Your task to perform on an android device: turn notification dots off Image 0: 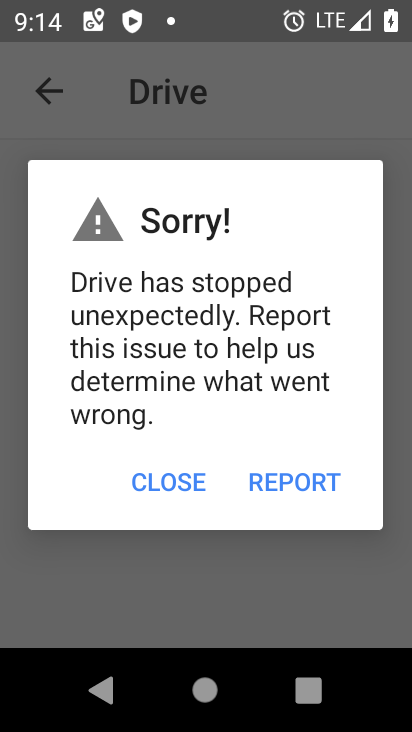
Step 0: press home button
Your task to perform on an android device: turn notification dots off Image 1: 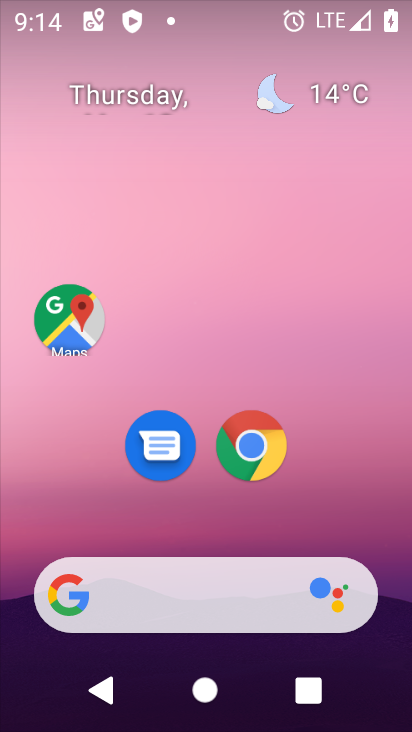
Step 1: drag from (2, 343) to (409, 326)
Your task to perform on an android device: turn notification dots off Image 2: 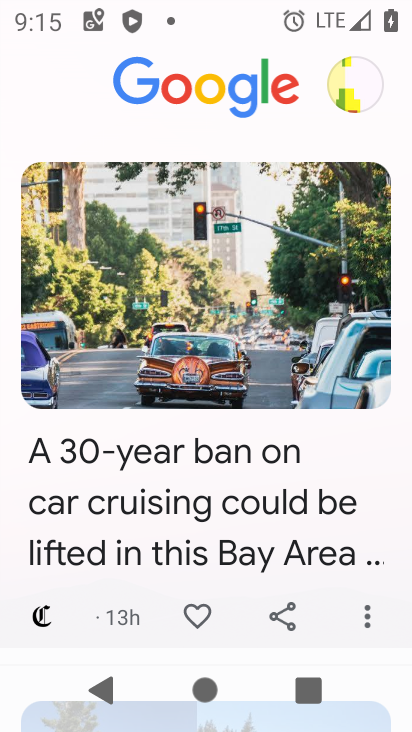
Step 2: press home button
Your task to perform on an android device: turn notification dots off Image 3: 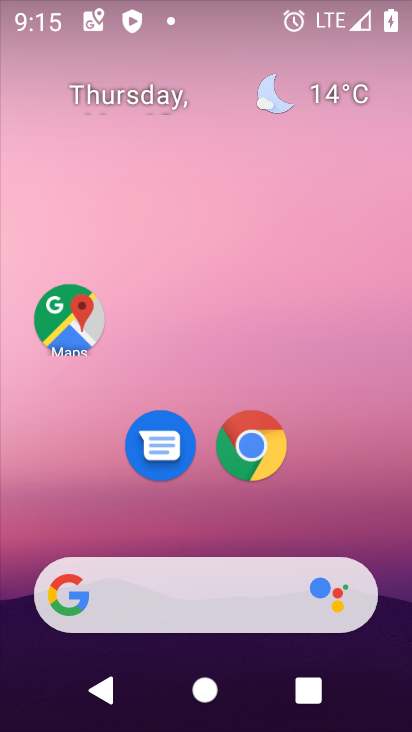
Step 3: drag from (243, 659) to (231, 194)
Your task to perform on an android device: turn notification dots off Image 4: 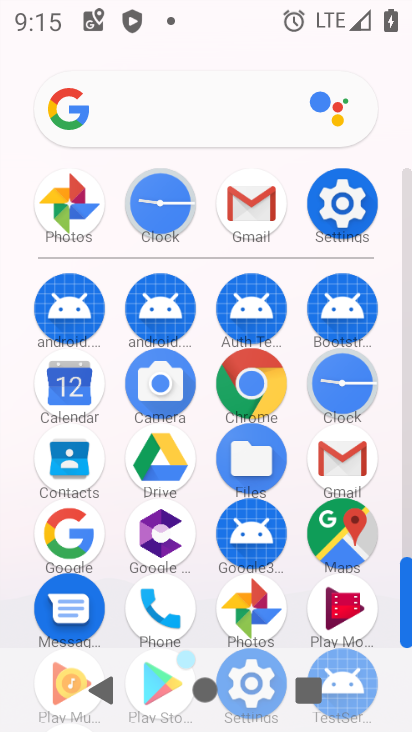
Step 4: click (342, 198)
Your task to perform on an android device: turn notification dots off Image 5: 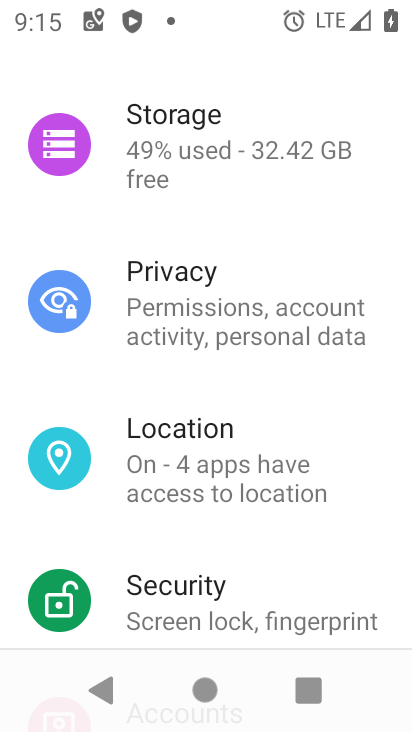
Step 5: drag from (228, 196) to (219, 555)
Your task to perform on an android device: turn notification dots off Image 6: 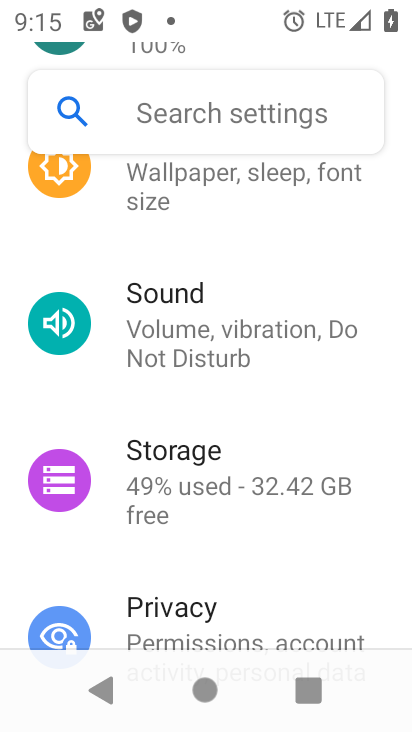
Step 6: drag from (221, 196) to (223, 518)
Your task to perform on an android device: turn notification dots off Image 7: 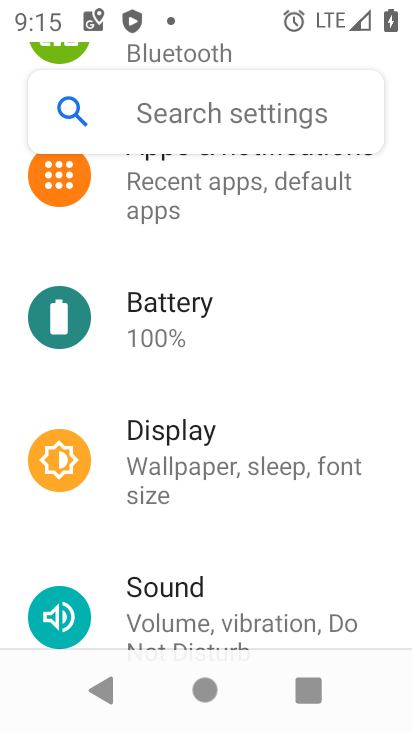
Step 7: drag from (250, 199) to (247, 589)
Your task to perform on an android device: turn notification dots off Image 8: 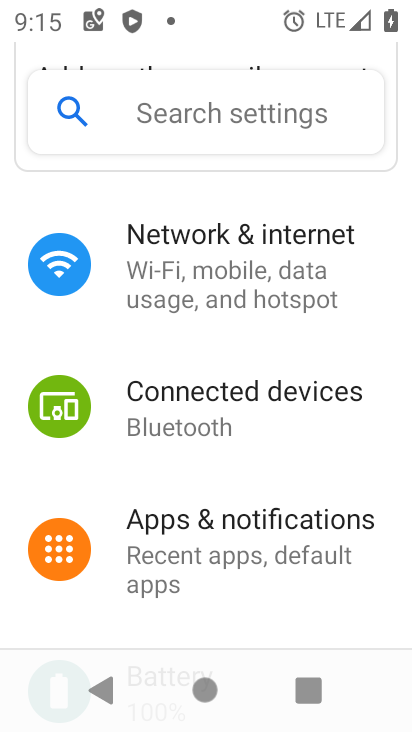
Step 8: click (242, 531)
Your task to perform on an android device: turn notification dots off Image 9: 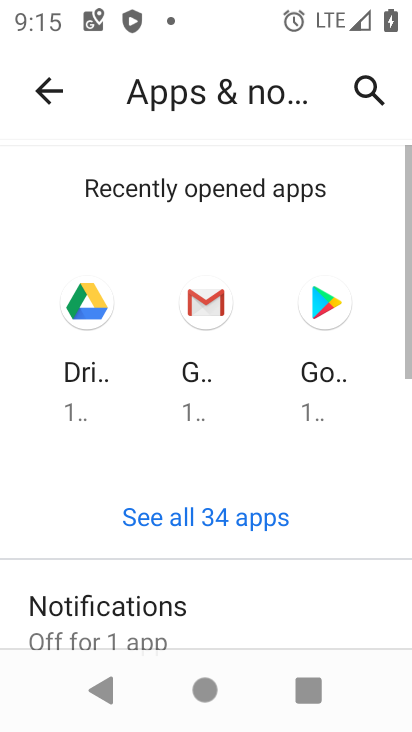
Step 9: drag from (219, 626) to (234, 230)
Your task to perform on an android device: turn notification dots off Image 10: 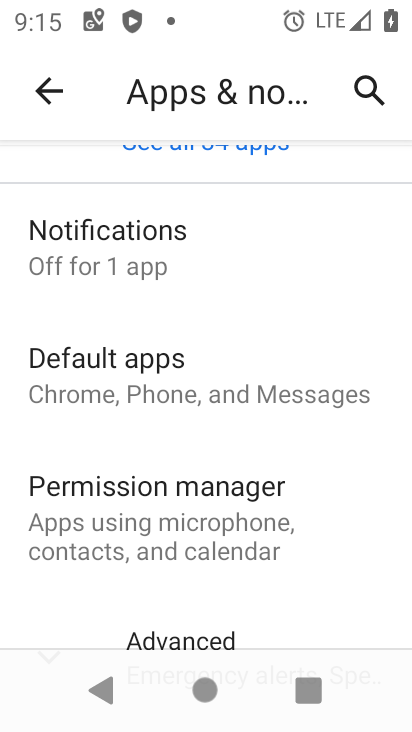
Step 10: click (110, 248)
Your task to perform on an android device: turn notification dots off Image 11: 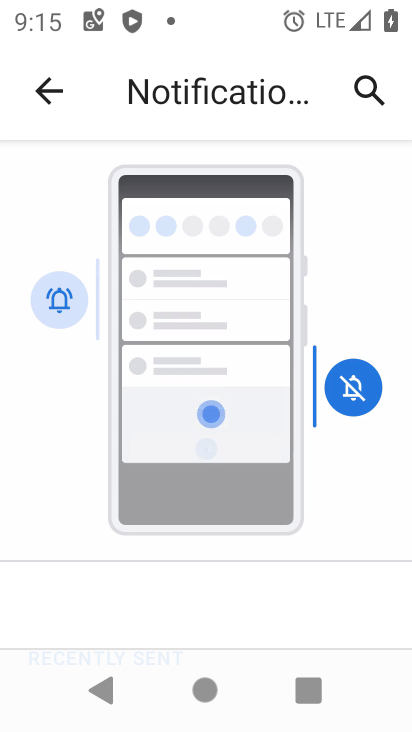
Step 11: drag from (335, 605) to (324, 295)
Your task to perform on an android device: turn notification dots off Image 12: 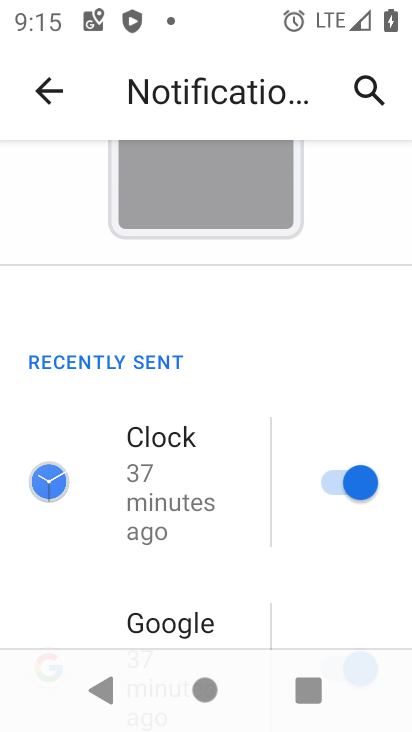
Step 12: drag from (261, 624) to (262, 320)
Your task to perform on an android device: turn notification dots off Image 13: 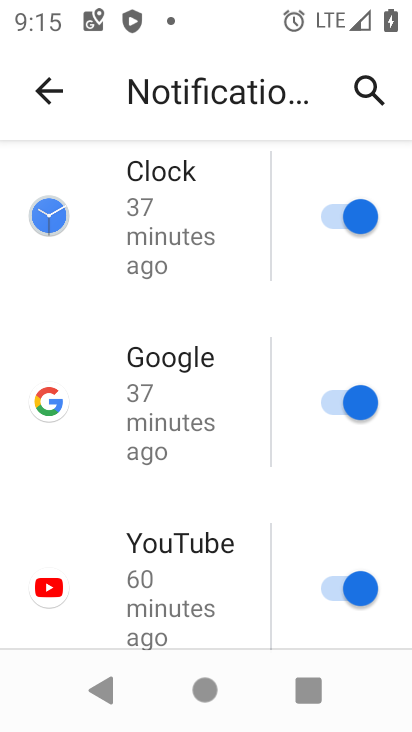
Step 13: drag from (234, 632) to (236, 177)
Your task to perform on an android device: turn notification dots off Image 14: 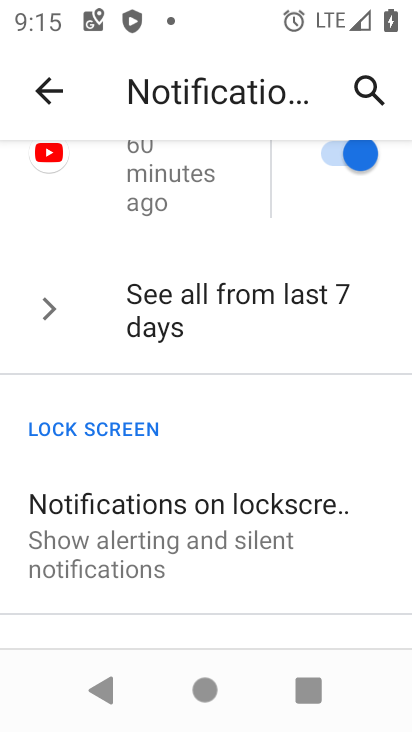
Step 14: drag from (219, 614) to (214, 194)
Your task to perform on an android device: turn notification dots off Image 15: 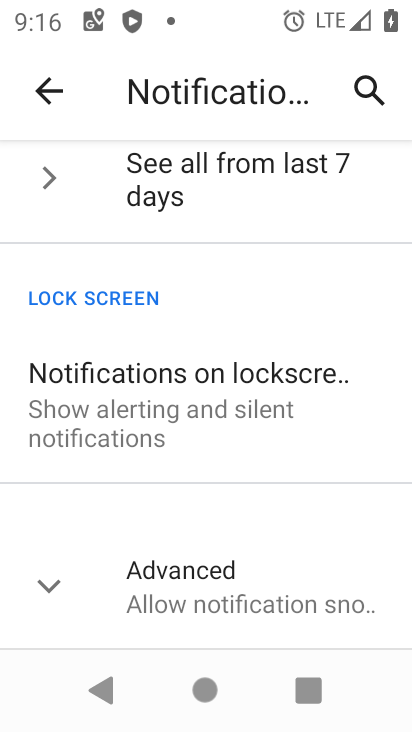
Step 15: click (165, 592)
Your task to perform on an android device: turn notification dots off Image 16: 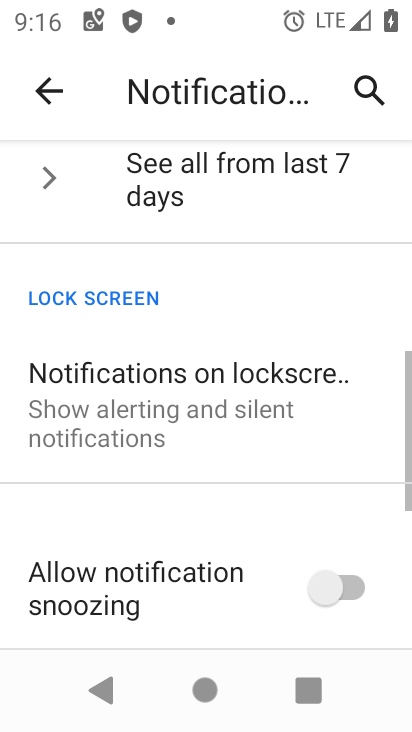
Step 16: drag from (235, 605) to (216, 229)
Your task to perform on an android device: turn notification dots off Image 17: 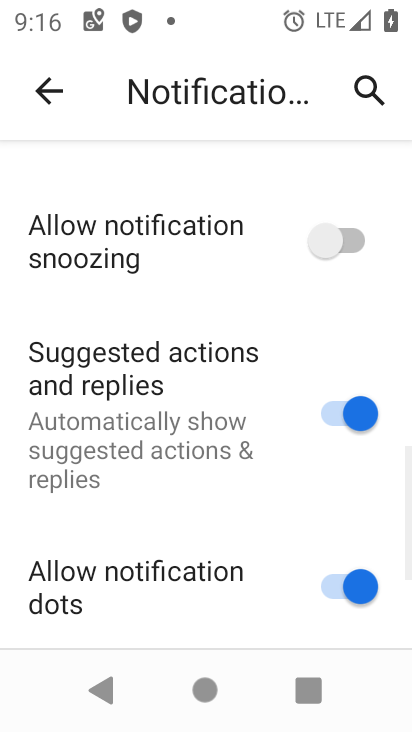
Step 17: drag from (275, 633) to (230, 250)
Your task to perform on an android device: turn notification dots off Image 18: 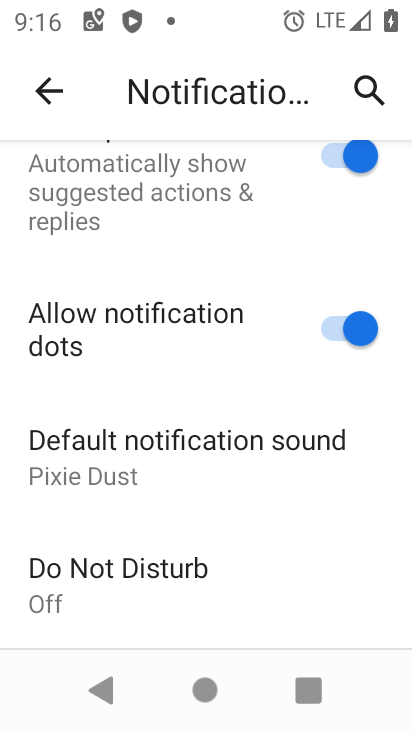
Step 18: click (329, 325)
Your task to perform on an android device: turn notification dots off Image 19: 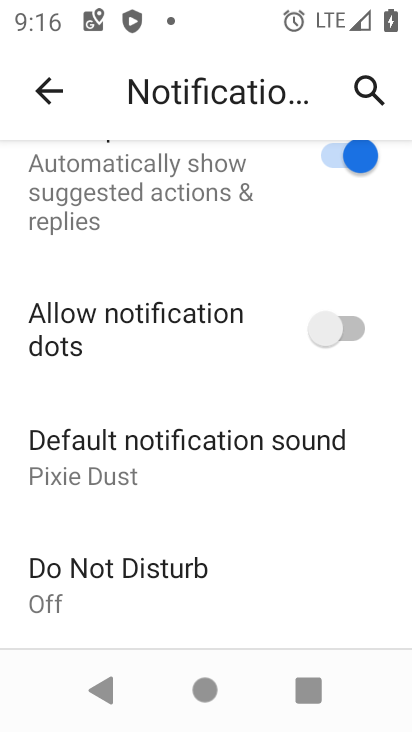
Step 19: task complete